Your task to perform on an android device: Open eBay Image 0: 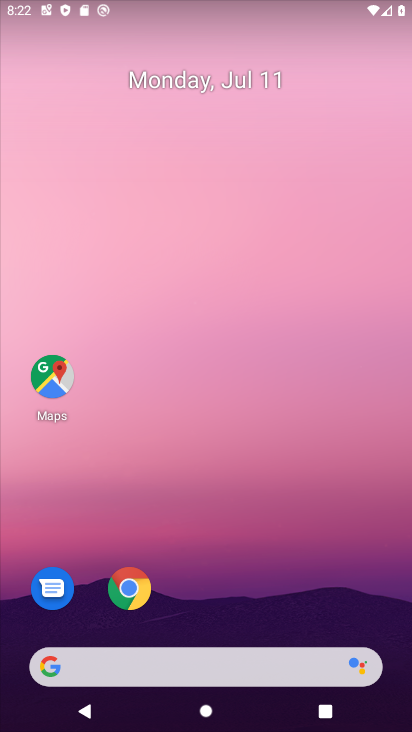
Step 0: click (131, 589)
Your task to perform on an android device: Open eBay Image 1: 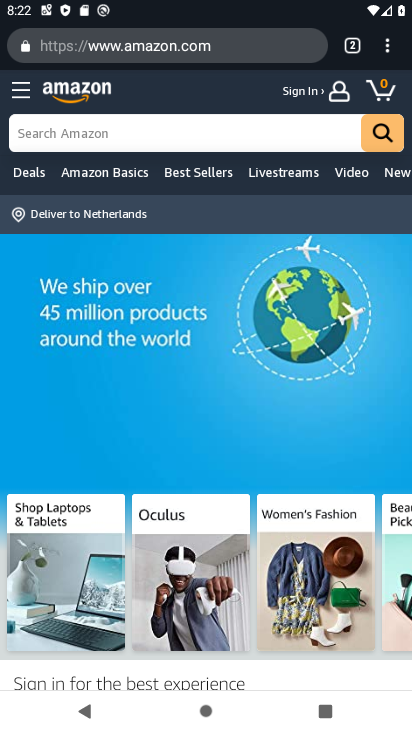
Step 1: click (217, 49)
Your task to perform on an android device: Open eBay Image 2: 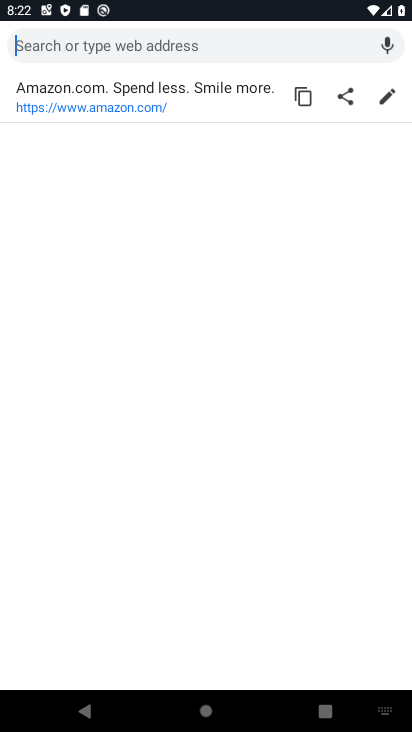
Step 2: type "ebay"
Your task to perform on an android device: Open eBay Image 3: 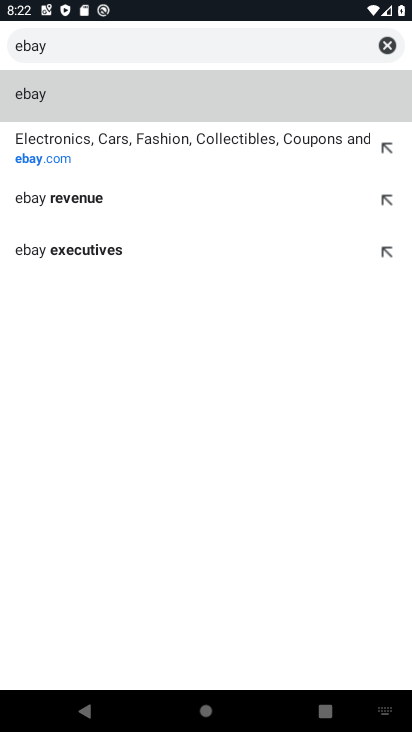
Step 3: click (27, 102)
Your task to perform on an android device: Open eBay Image 4: 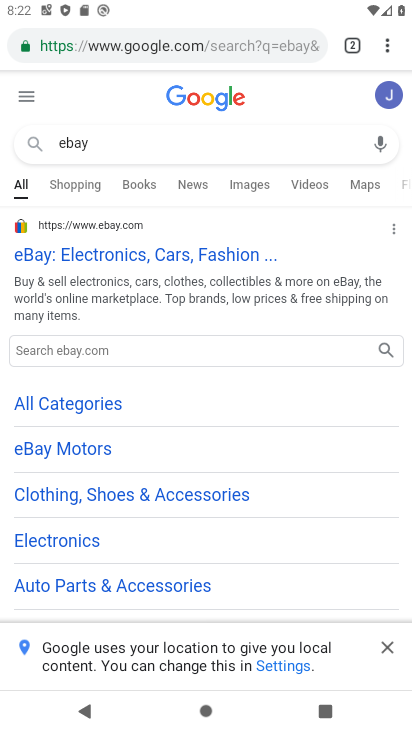
Step 4: click (68, 255)
Your task to perform on an android device: Open eBay Image 5: 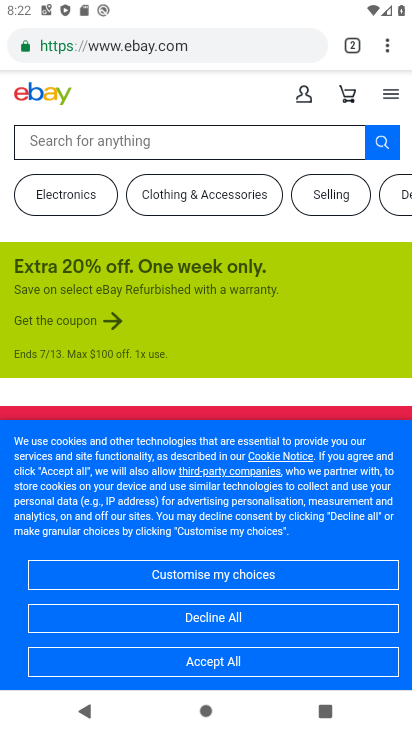
Step 5: task complete